Your task to perform on an android device: turn off data saver in the chrome app Image 0: 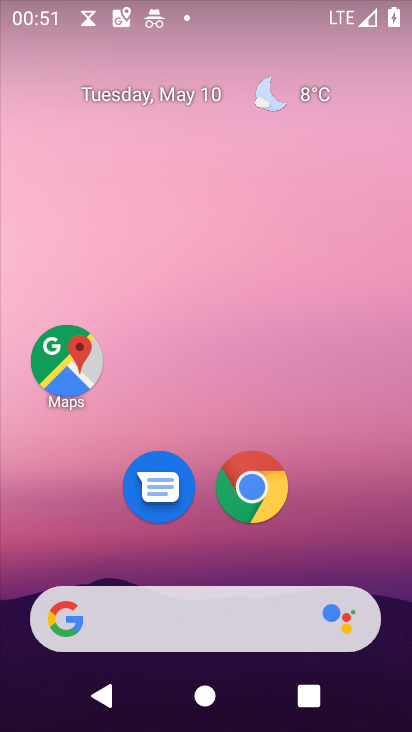
Step 0: drag from (225, 563) to (294, 26)
Your task to perform on an android device: turn off data saver in the chrome app Image 1: 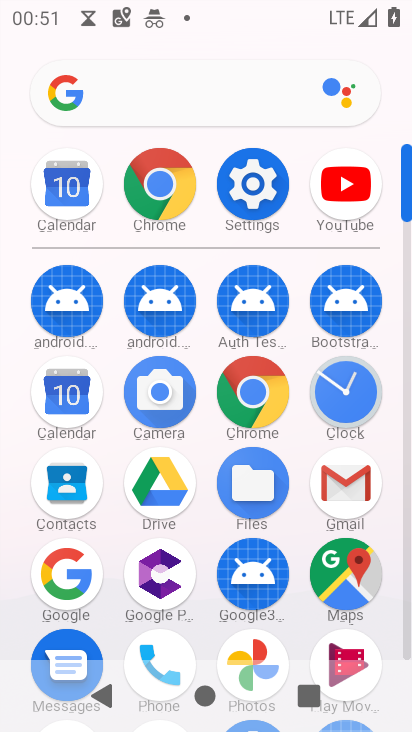
Step 1: click (251, 394)
Your task to perform on an android device: turn off data saver in the chrome app Image 2: 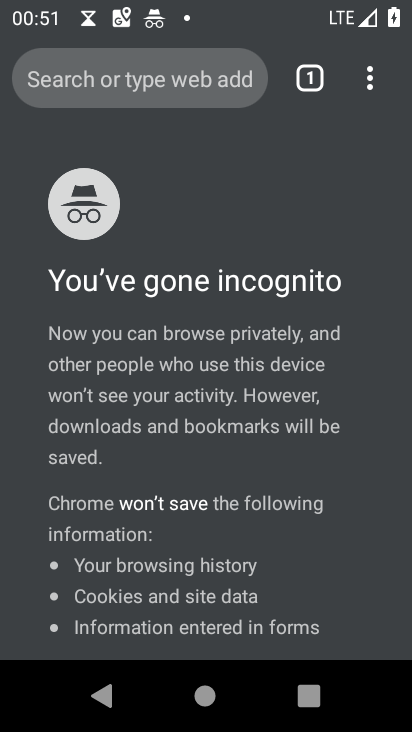
Step 2: click (307, 79)
Your task to perform on an android device: turn off data saver in the chrome app Image 3: 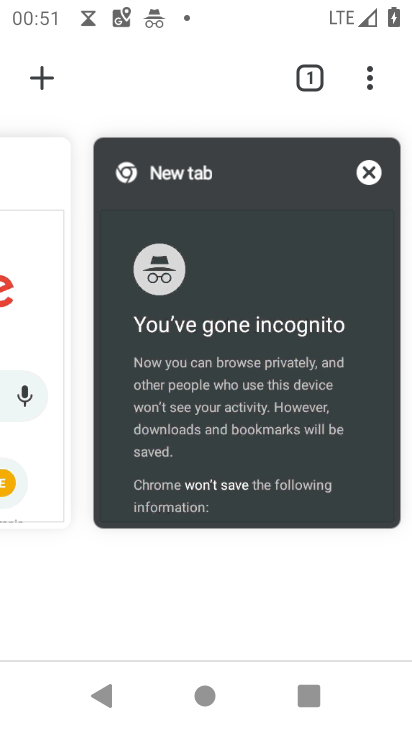
Step 3: click (366, 173)
Your task to perform on an android device: turn off data saver in the chrome app Image 4: 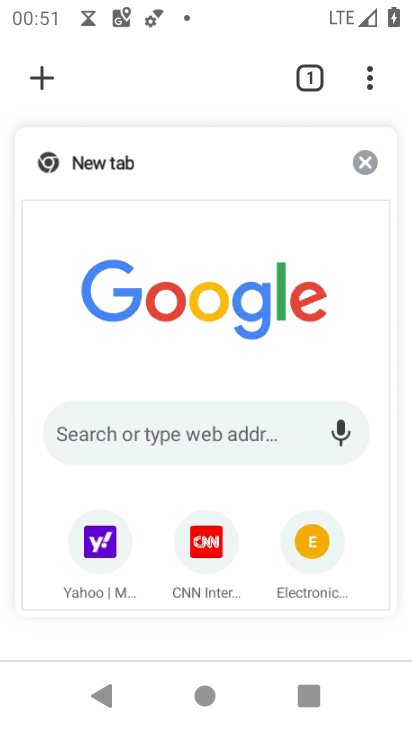
Step 4: click (169, 321)
Your task to perform on an android device: turn off data saver in the chrome app Image 5: 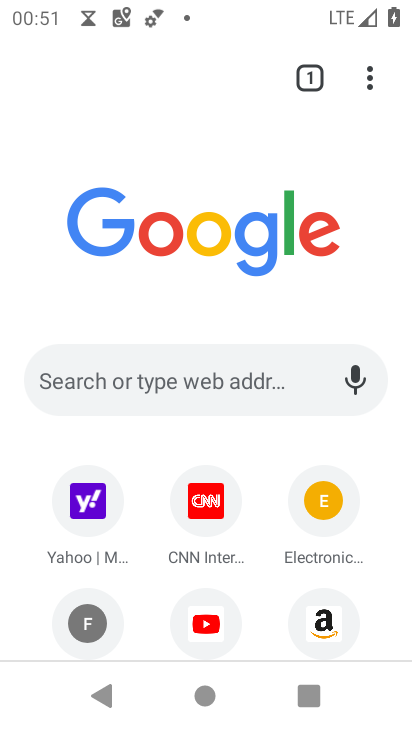
Step 5: click (367, 75)
Your task to perform on an android device: turn off data saver in the chrome app Image 6: 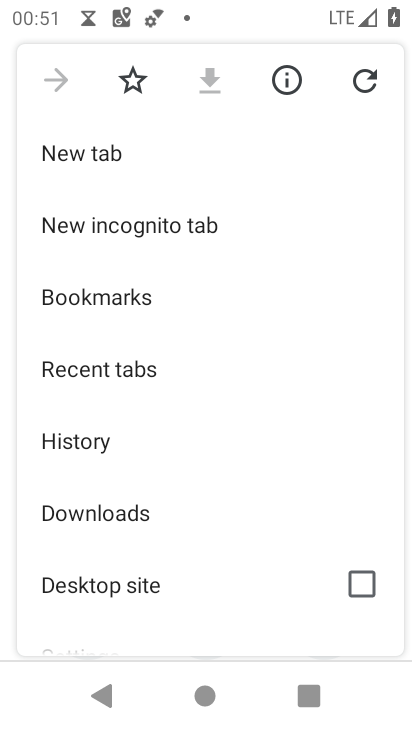
Step 6: drag from (156, 607) to (172, 150)
Your task to perform on an android device: turn off data saver in the chrome app Image 7: 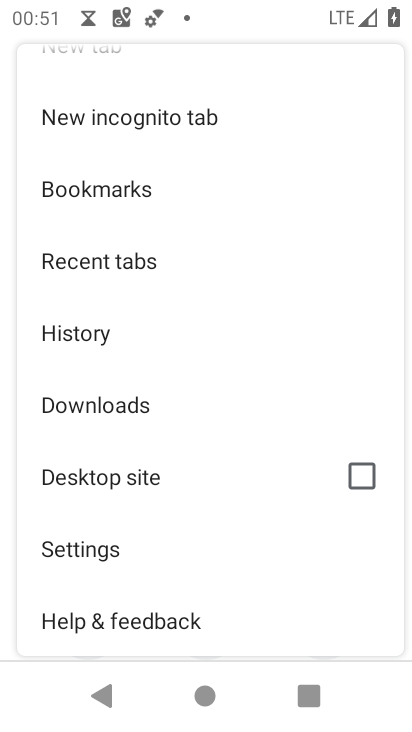
Step 7: click (130, 544)
Your task to perform on an android device: turn off data saver in the chrome app Image 8: 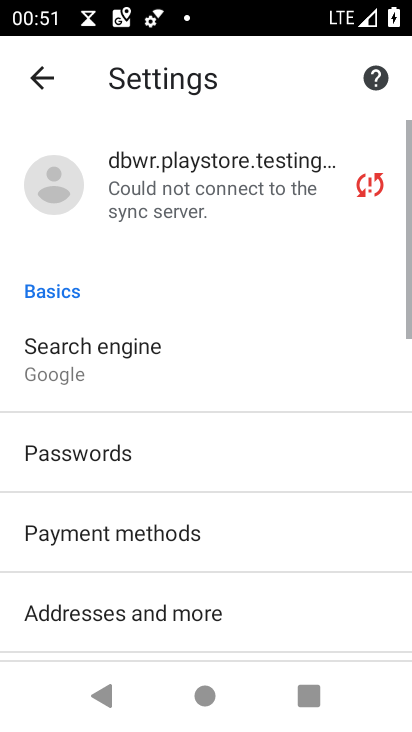
Step 8: drag from (248, 601) to (265, 359)
Your task to perform on an android device: turn off data saver in the chrome app Image 9: 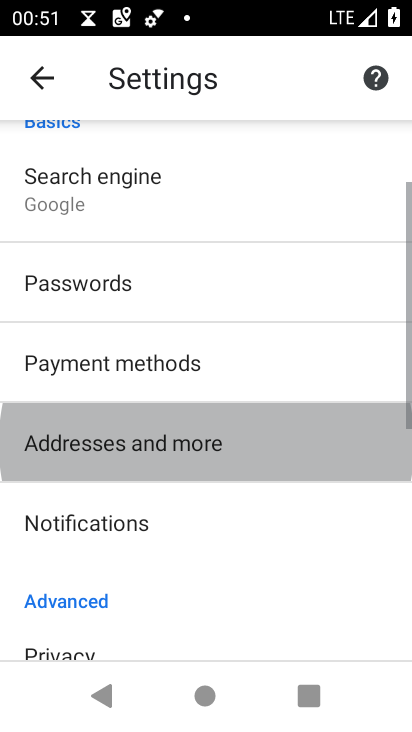
Step 9: drag from (275, 198) to (277, 153)
Your task to perform on an android device: turn off data saver in the chrome app Image 10: 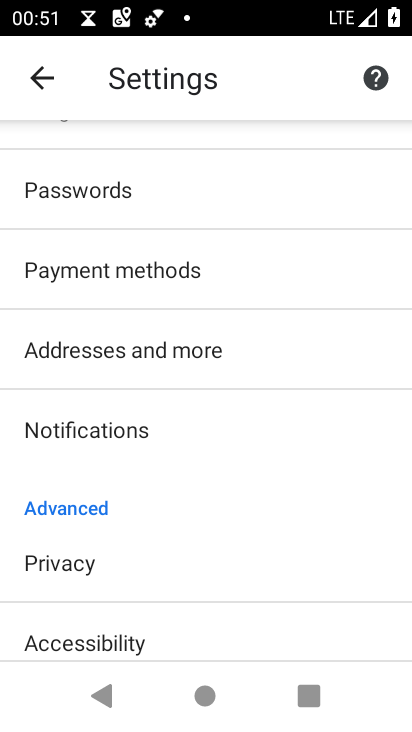
Step 10: drag from (182, 614) to (237, 208)
Your task to perform on an android device: turn off data saver in the chrome app Image 11: 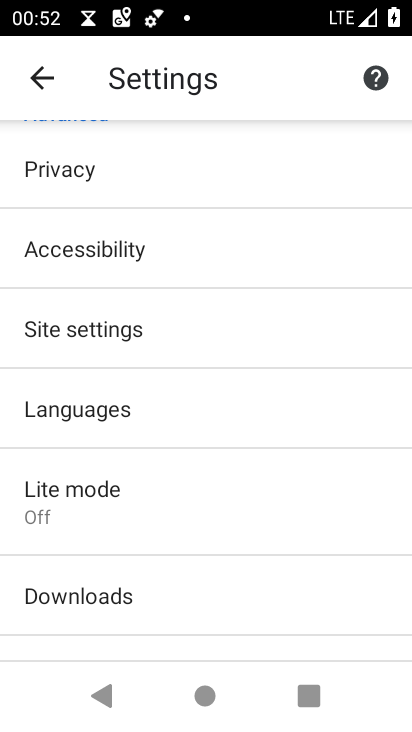
Step 11: click (88, 513)
Your task to perform on an android device: turn off data saver in the chrome app Image 12: 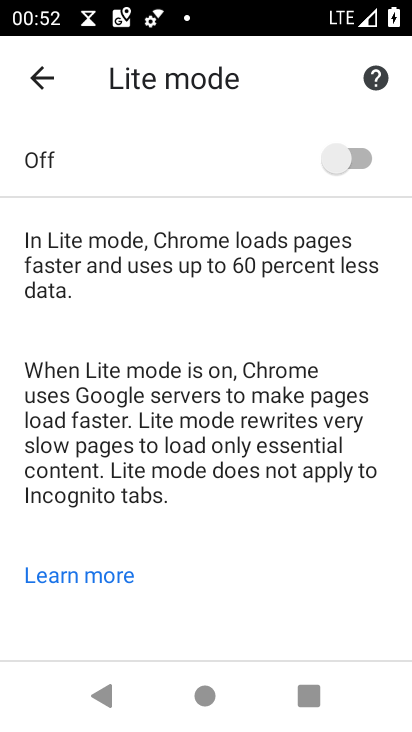
Step 12: task complete